Your task to perform on an android device: Go to ESPN.com Image 0: 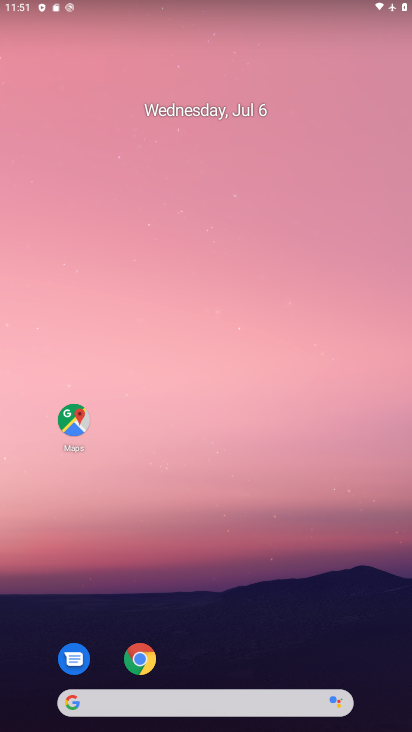
Step 0: drag from (252, 575) to (144, 233)
Your task to perform on an android device: Go to ESPN.com Image 1: 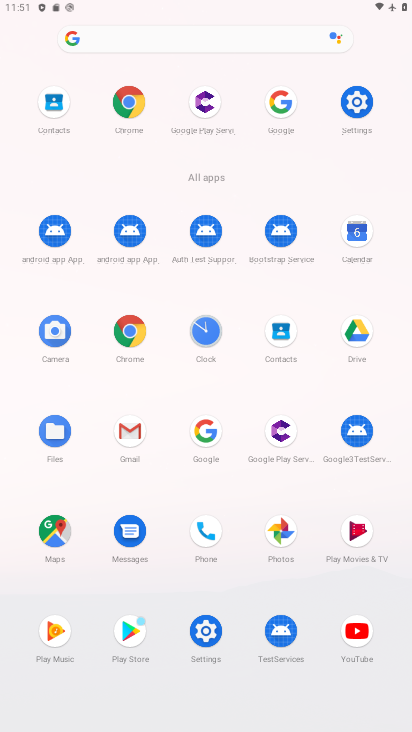
Step 1: click (139, 112)
Your task to perform on an android device: Go to ESPN.com Image 2: 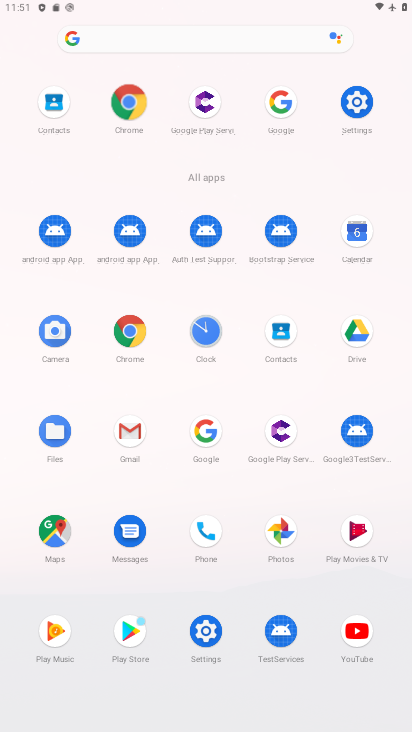
Step 2: click (131, 112)
Your task to perform on an android device: Go to ESPN.com Image 3: 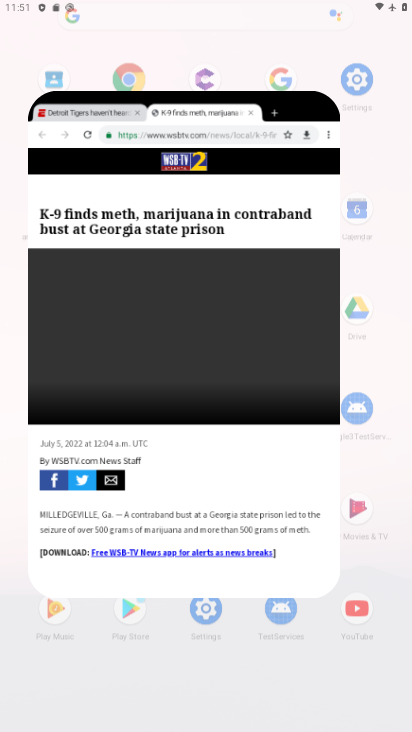
Step 3: click (131, 112)
Your task to perform on an android device: Go to ESPN.com Image 4: 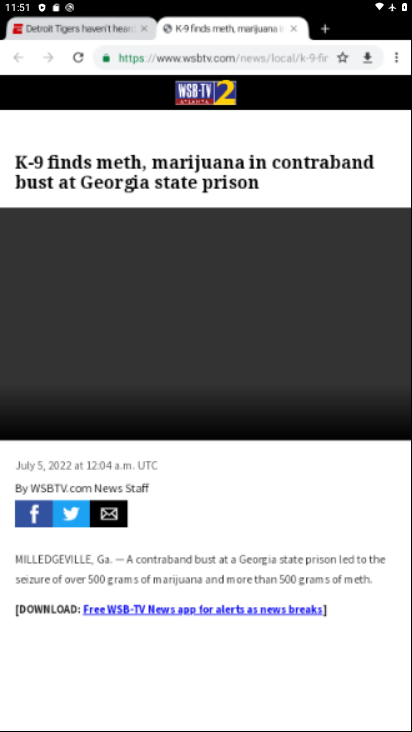
Step 4: click (137, 111)
Your task to perform on an android device: Go to ESPN.com Image 5: 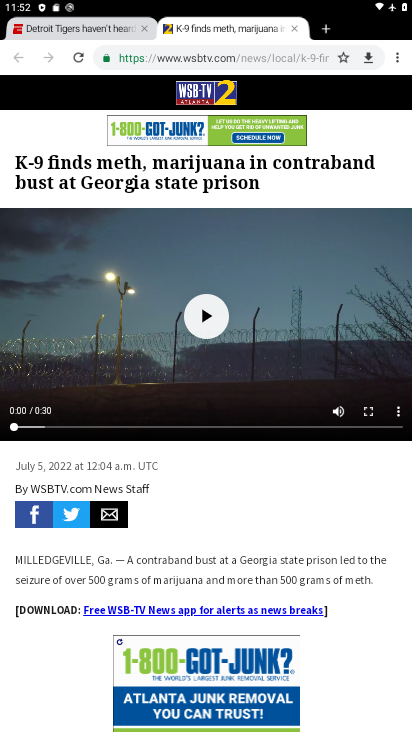
Step 5: drag from (232, 607) to (180, 141)
Your task to perform on an android device: Go to ESPN.com Image 6: 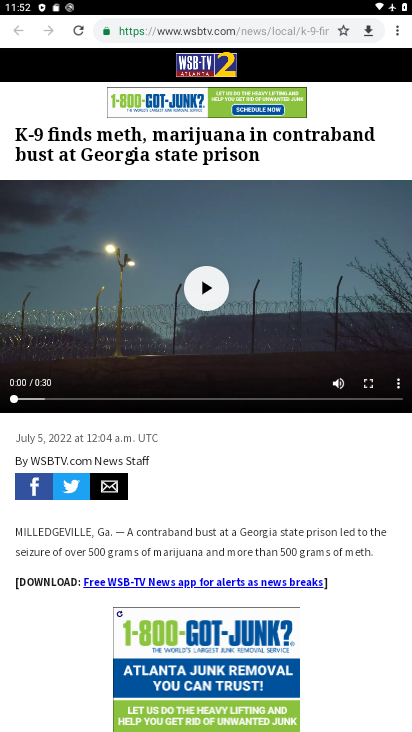
Step 6: drag from (230, 377) to (269, 473)
Your task to perform on an android device: Go to ESPN.com Image 7: 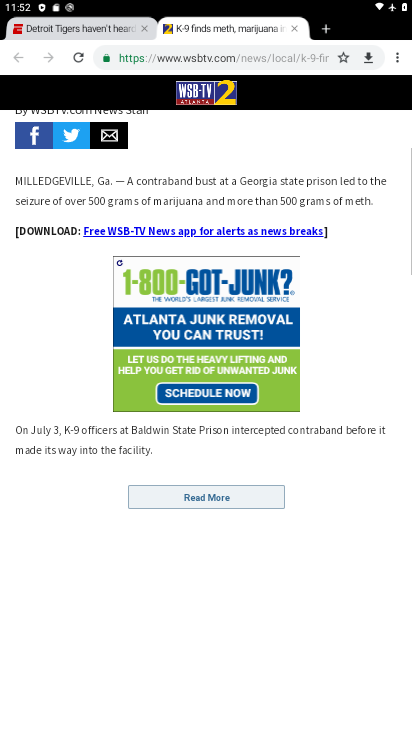
Step 7: drag from (238, 221) to (169, 403)
Your task to perform on an android device: Go to ESPN.com Image 8: 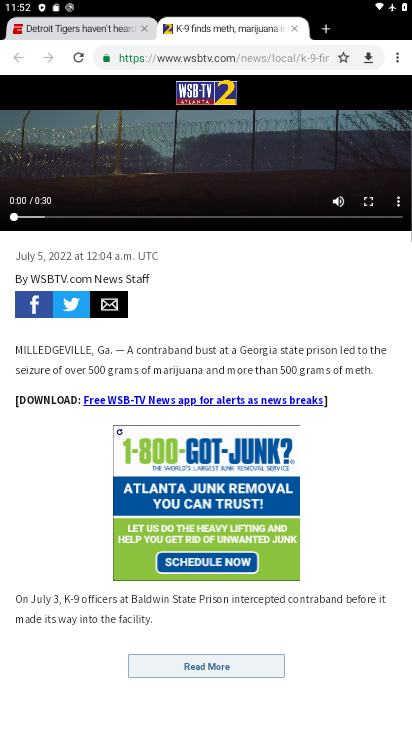
Step 8: drag from (101, 321) to (86, 393)
Your task to perform on an android device: Go to ESPN.com Image 9: 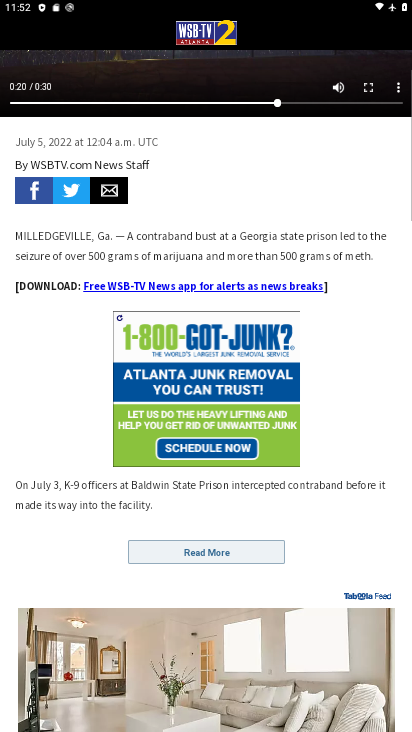
Step 9: drag from (13, 62) to (28, 333)
Your task to perform on an android device: Go to ESPN.com Image 10: 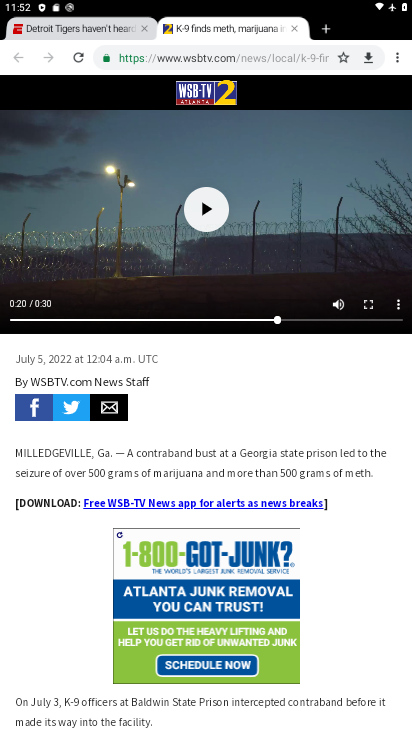
Step 10: click (16, 56)
Your task to perform on an android device: Go to ESPN.com Image 11: 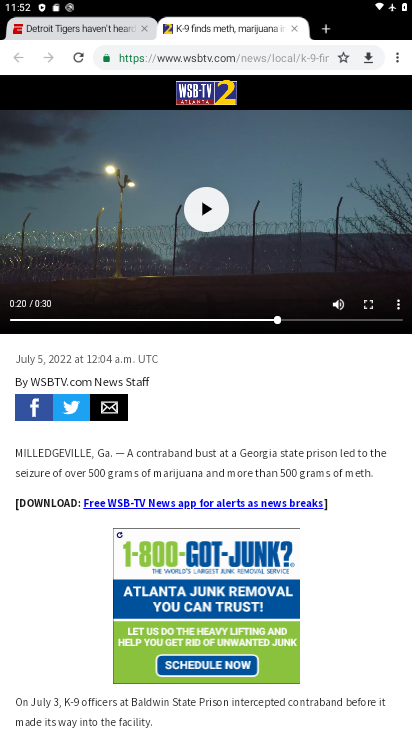
Step 11: click (16, 56)
Your task to perform on an android device: Go to ESPN.com Image 12: 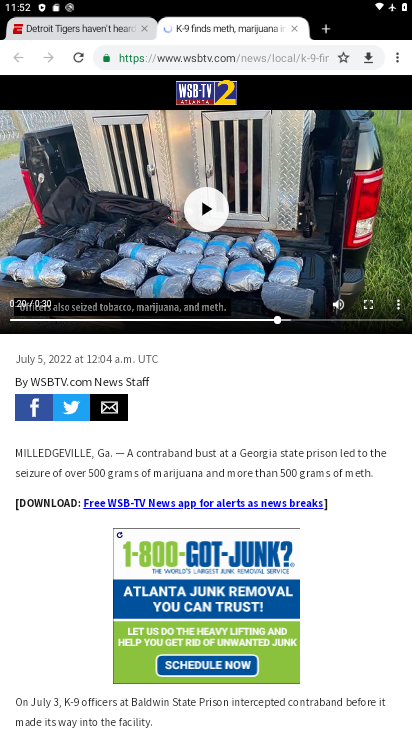
Step 12: click (46, 51)
Your task to perform on an android device: Go to ESPN.com Image 13: 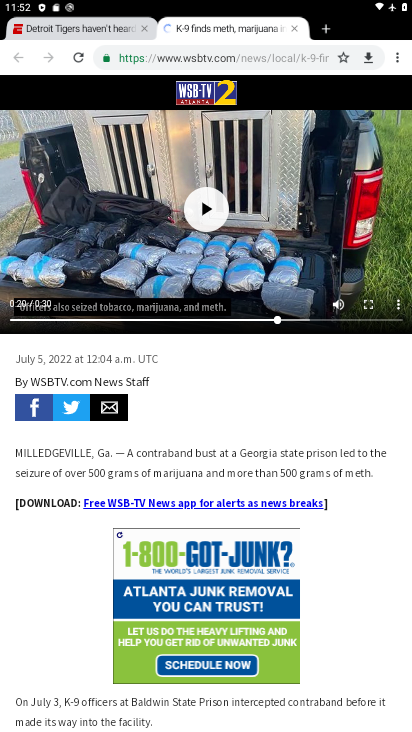
Step 13: press back button
Your task to perform on an android device: Go to ESPN.com Image 14: 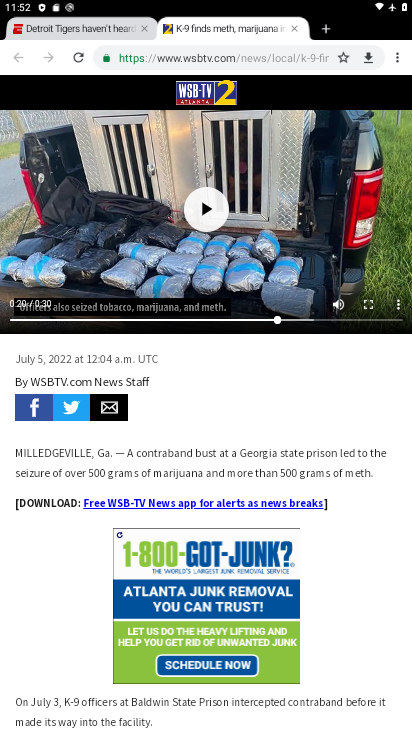
Step 14: press back button
Your task to perform on an android device: Go to ESPN.com Image 15: 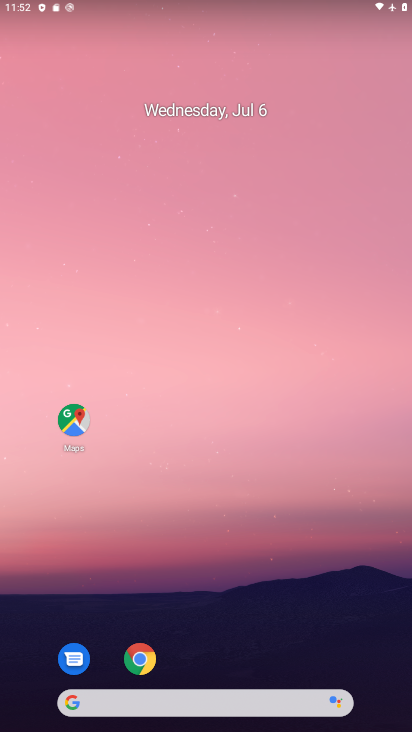
Step 15: drag from (239, 689) to (143, 32)
Your task to perform on an android device: Go to ESPN.com Image 16: 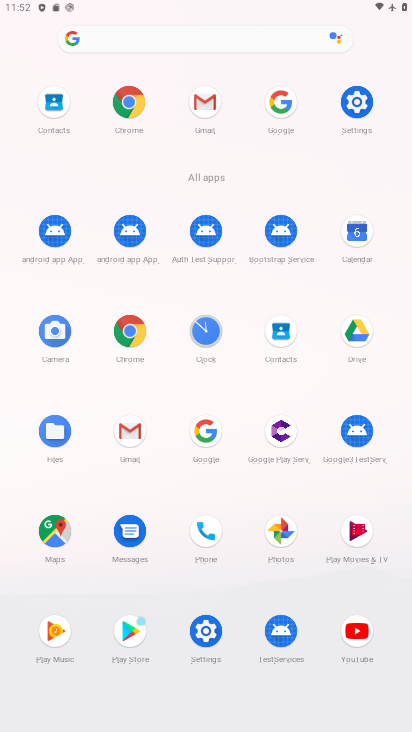
Step 16: click (228, 37)
Your task to perform on an android device: Go to ESPN.com Image 17: 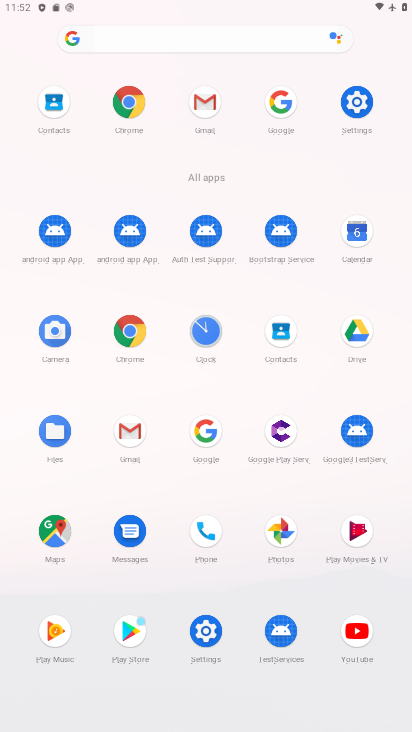
Step 17: drag from (286, 385) to (153, 0)
Your task to perform on an android device: Go to ESPN.com Image 18: 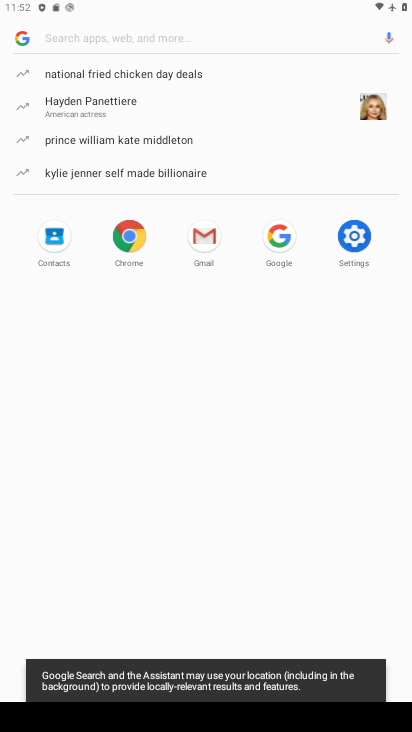
Step 18: click (122, 235)
Your task to perform on an android device: Go to ESPN.com Image 19: 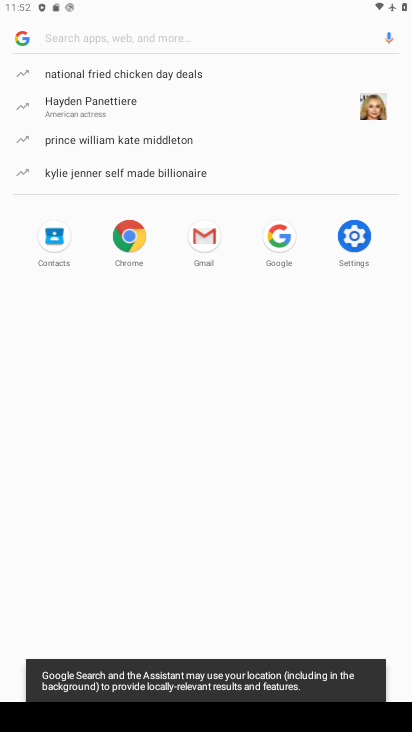
Step 19: click (122, 235)
Your task to perform on an android device: Go to ESPN.com Image 20: 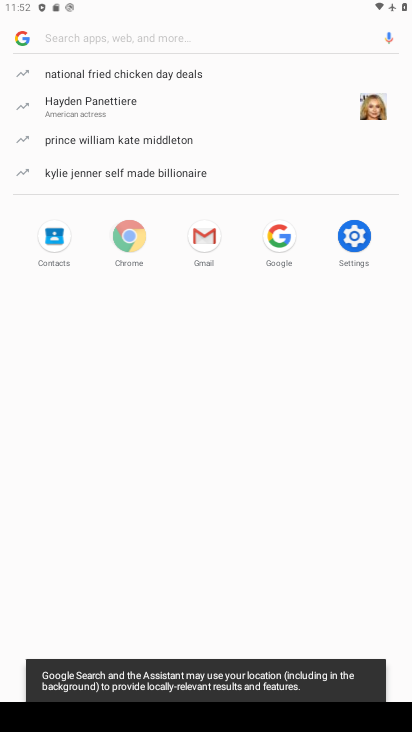
Step 20: click (127, 237)
Your task to perform on an android device: Go to ESPN.com Image 21: 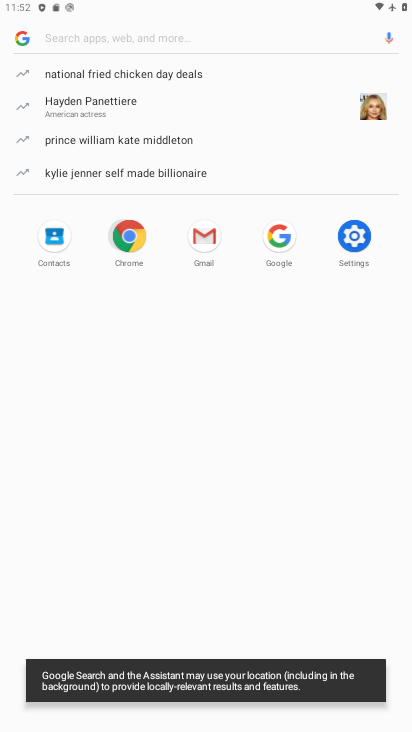
Step 21: click (127, 237)
Your task to perform on an android device: Go to ESPN.com Image 22: 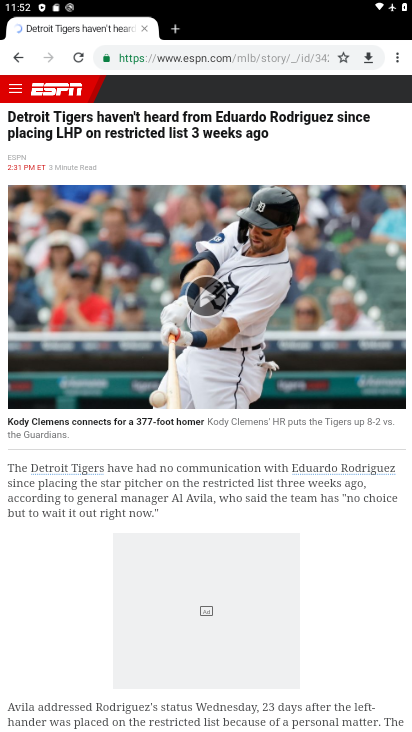
Step 22: click (64, 84)
Your task to perform on an android device: Go to ESPN.com Image 23: 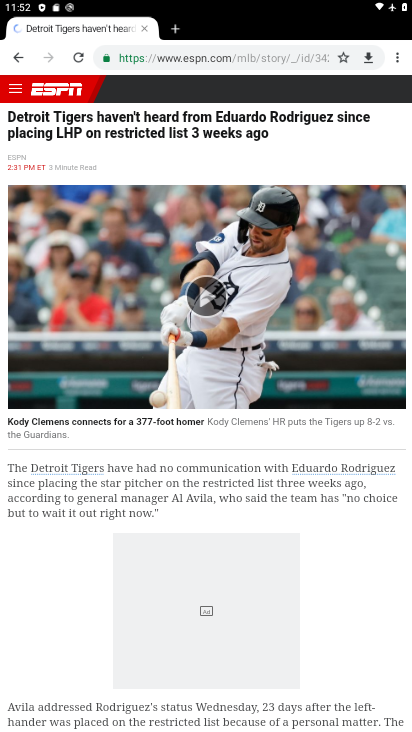
Step 23: click (64, 84)
Your task to perform on an android device: Go to ESPN.com Image 24: 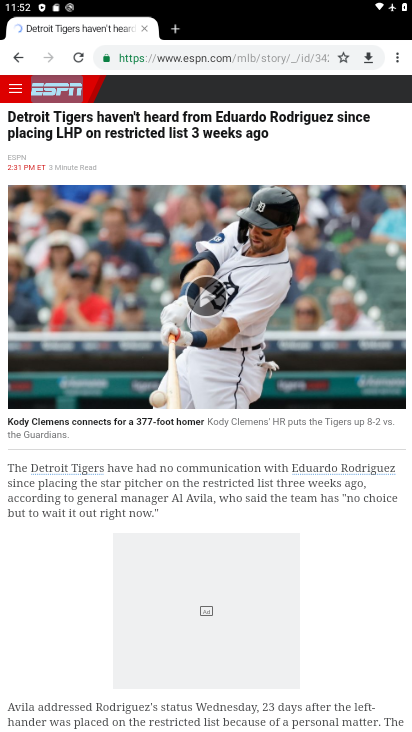
Step 24: click (64, 84)
Your task to perform on an android device: Go to ESPN.com Image 25: 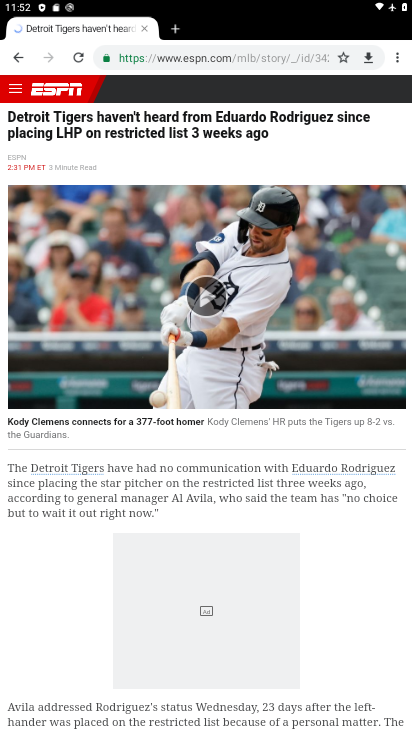
Step 25: task complete